Your task to perform on an android device: When is my next appointment? Image 0: 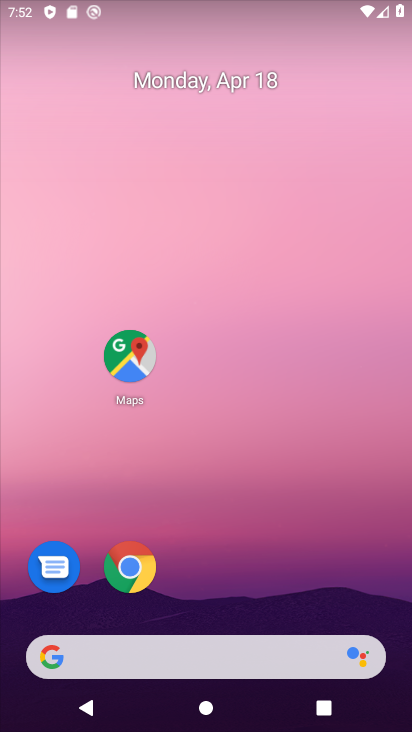
Step 0: drag from (239, 684) to (270, 8)
Your task to perform on an android device: When is my next appointment? Image 1: 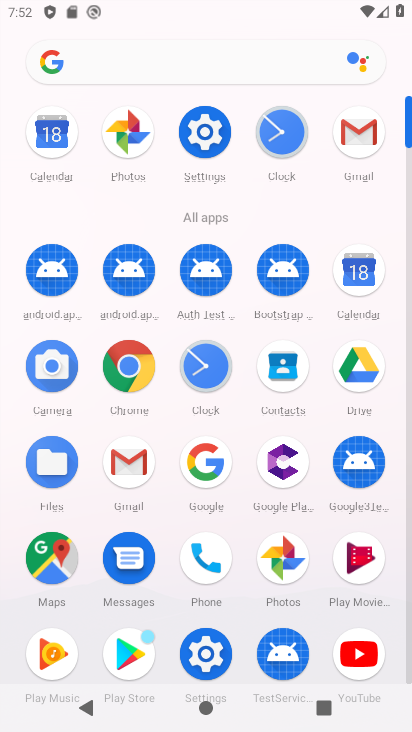
Step 1: click (363, 268)
Your task to perform on an android device: When is my next appointment? Image 2: 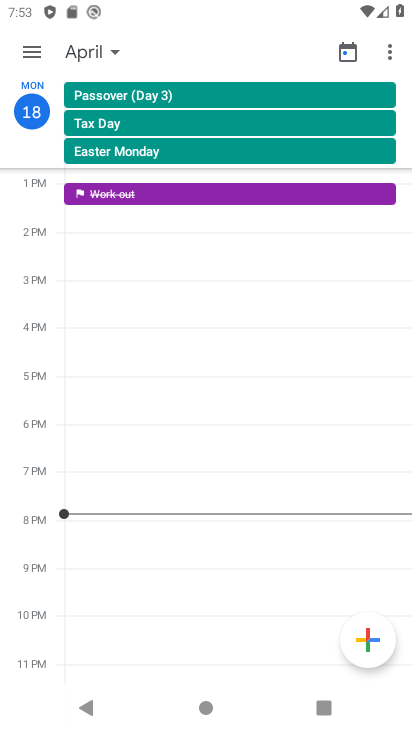
Step 2: click (37, 66)
Your task to perform on an android device: When is my next appointment? Image 3: 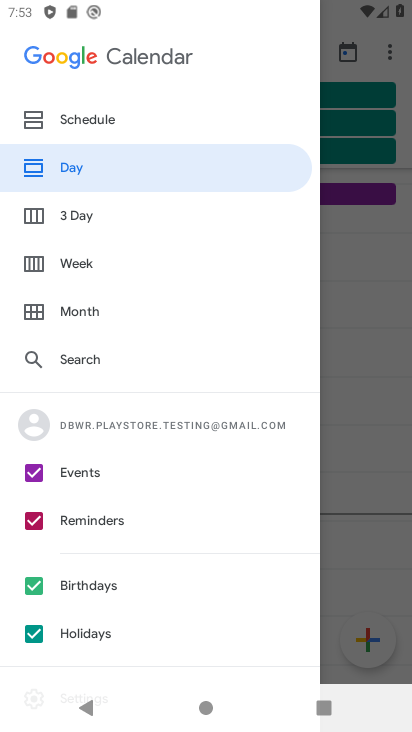
Step 3: click (80, 262)
Your task to perform on an android device: When is my next appointment? Image 4: 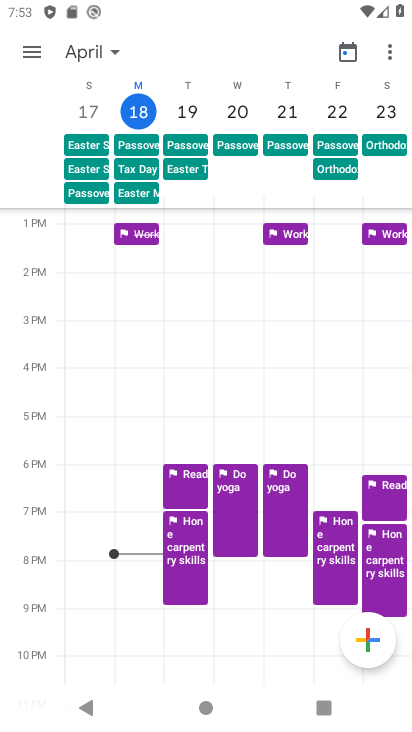
Step 4: click (32, 59)
Your task to perform on an android device: When is my next appointment? Image 5: 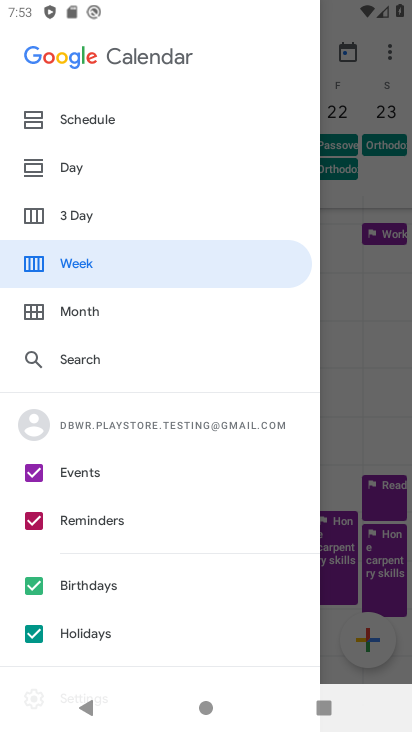
Step 5: click (173, 476)
Your task to perform on an android device: When is my next appointment? Image 6: 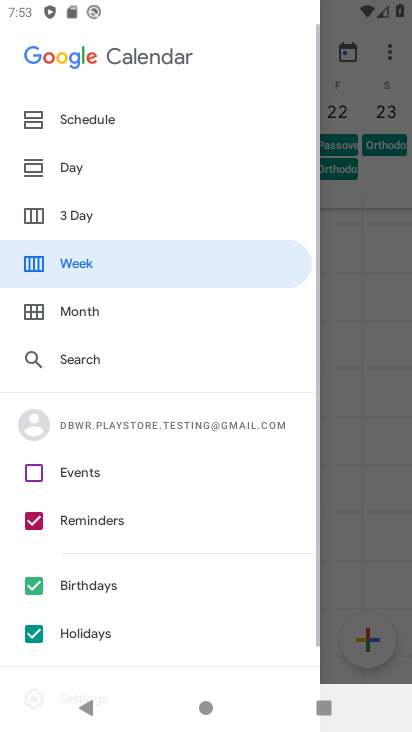
Step 6: click (173, 476)
Your task to perform on an android device: When is my next appointment? Image 7: 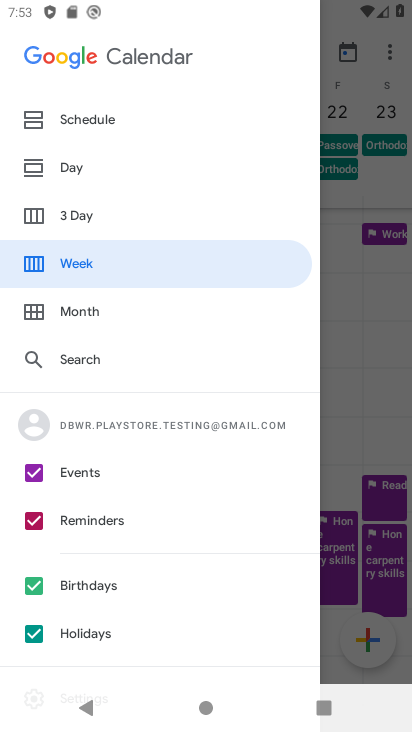
Step 7: drag from (137, 502) to (141, 444)
Your task to perform on an android device: When is my next appointment? Image 8: 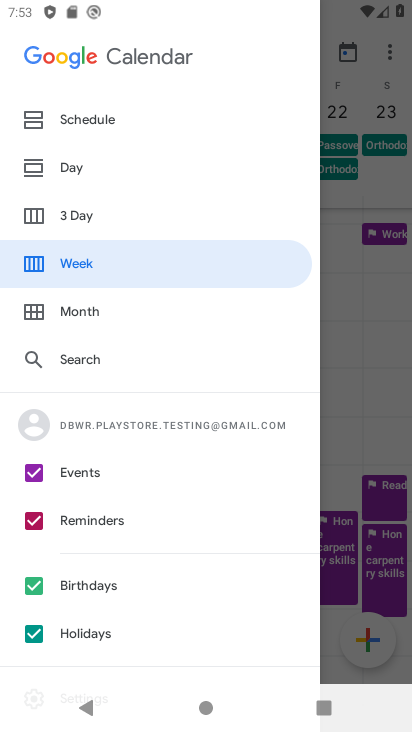
Step 8: click (87, 122)
Your task to perform on an android device: When is my next appointment? Image 9: 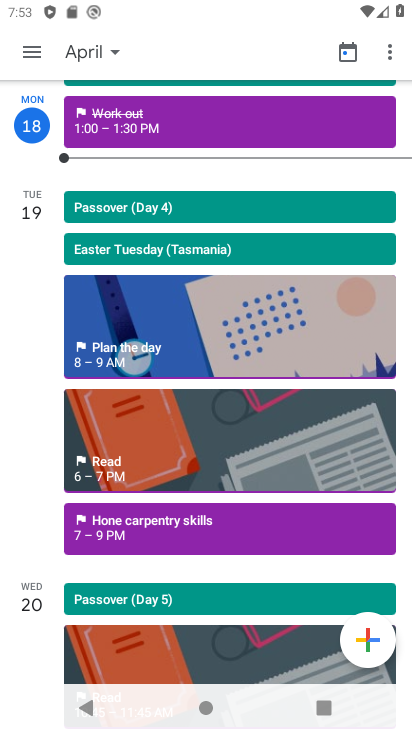
Step 9: task complete